Your task to perform on an android device: Open Chrome and go to settings Image 0: 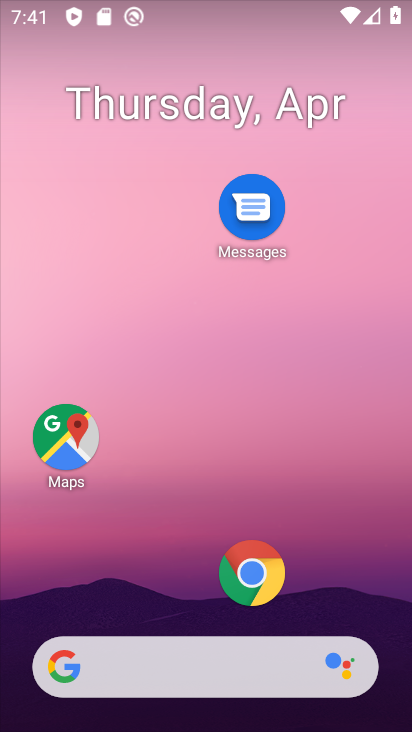
Step 0: press home button
Your task to perform on an android device: Open Chrome and go to settings Image 1: 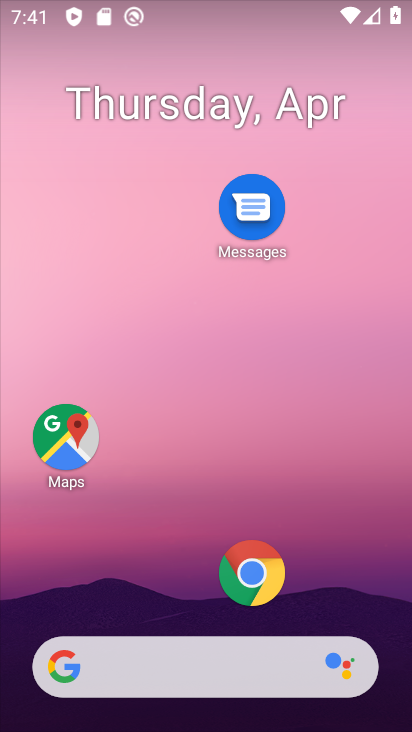
Step 1: click (249, 566)
Your task to perform on an android device: Open Chrome and go to settings Image 2: 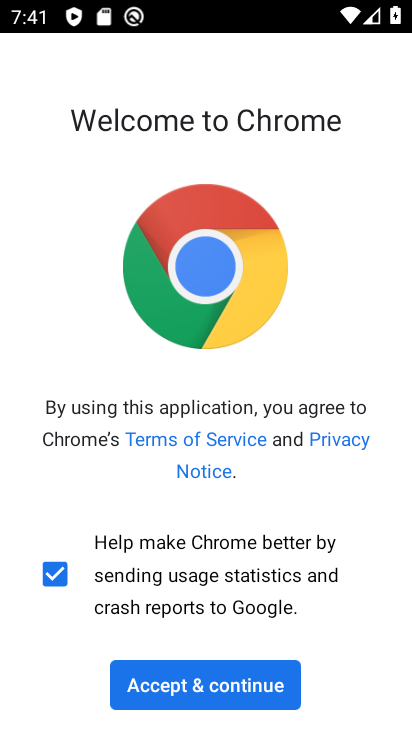
Step 2: click (196, 678)
Your task to perform on an android device: Open Chrome and go to settings Image 3: 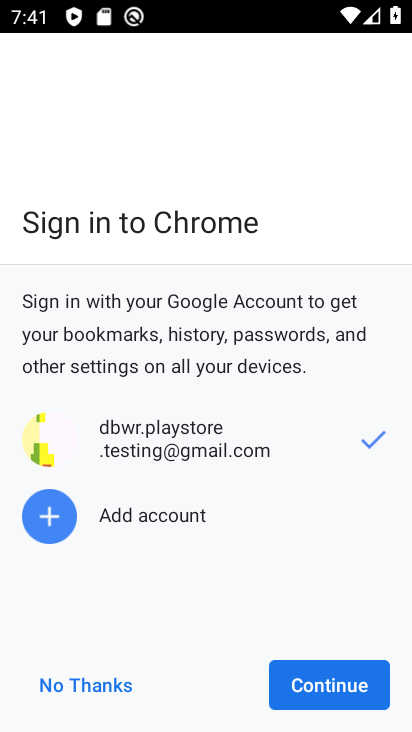
Step 3: click (338, 684)
Your task to perform on an android device: Open Chrome and go to settings Image 4: 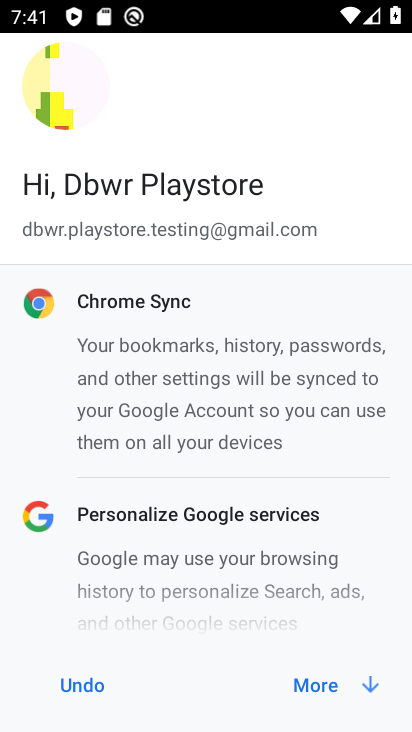
Step 4: click (320, 688)
Your task to perform on an android device: Open Chrome and go to settings Image 5: 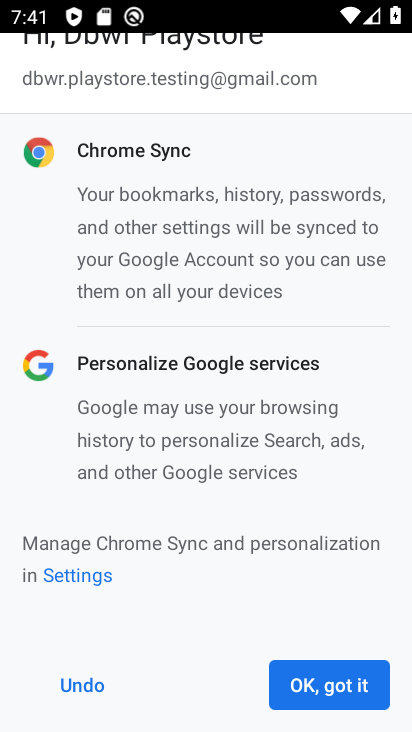
Step 5: click (319, 688)
Your task to perform on an android device: Open Chrome and go to settings Image 6: 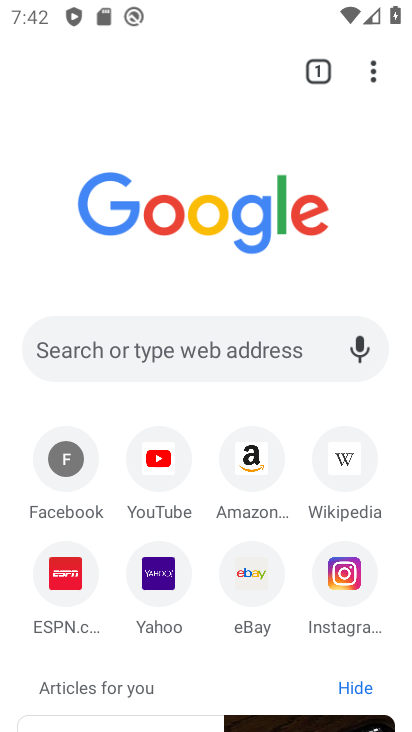
Step 6: click (379, 66)
Your task to perform on an android device: Open Chrome and go to settings Image 7: 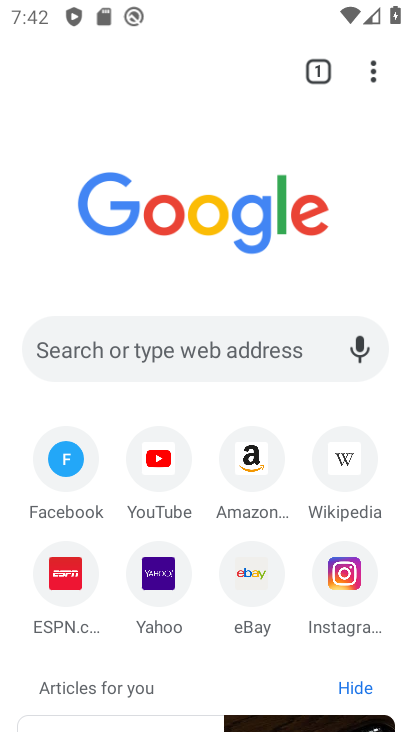
Step 7: click (365, 69)
Your task to perform on an android device: Open Chrome and go to settings Image 8: 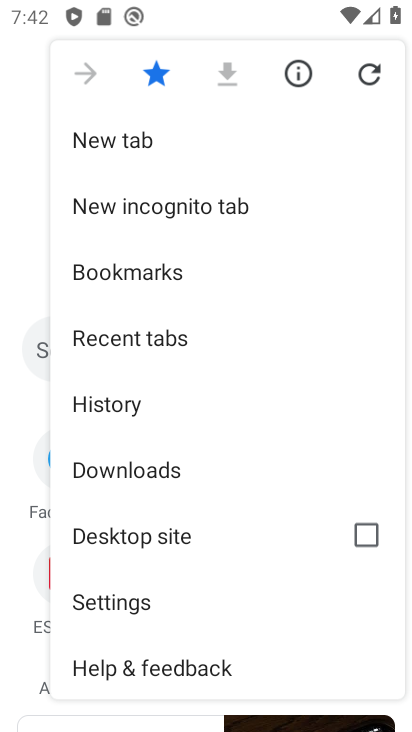
Step 8: click (160, 606)
Your task to perform on an android device: Open Chrome and go to settings Image 9: 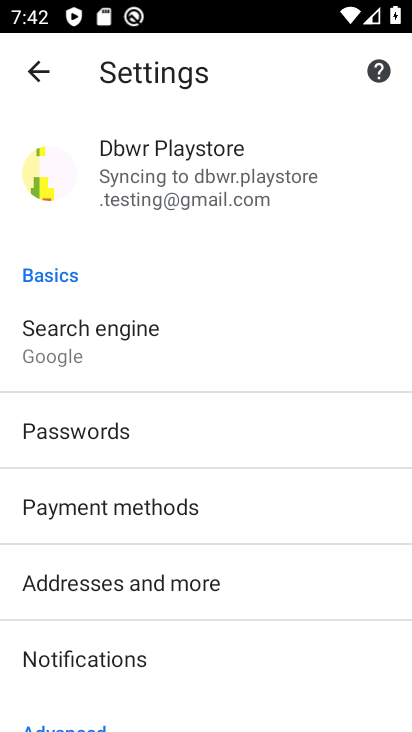
Step 9: task complete